Your task to perform on an android device: What is the recent news? Image 0: 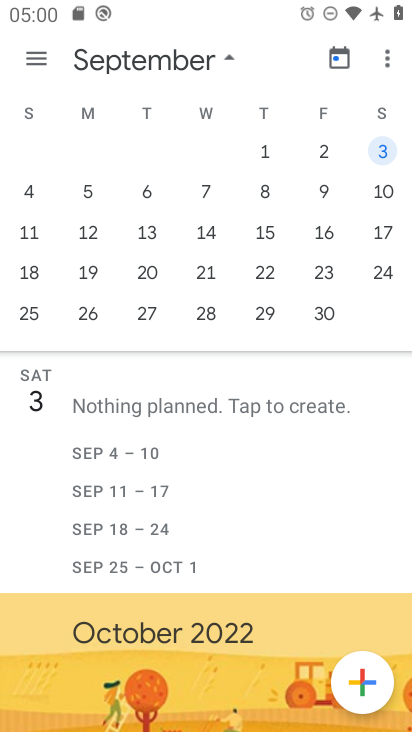
Step 0: press home button
Your task to perform on an android device: What is the recent news? Image 1: 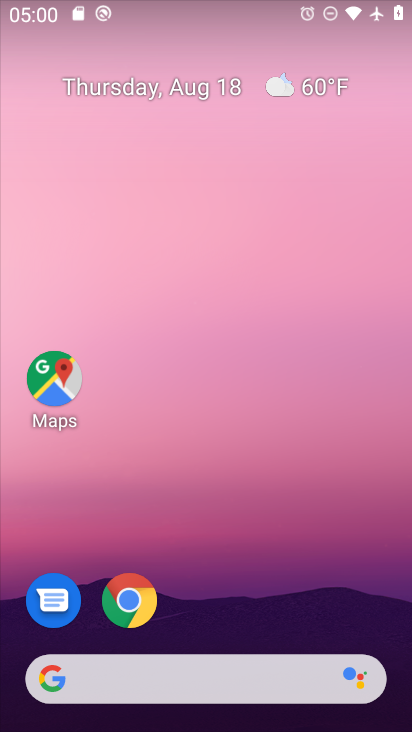
Step 1: click (51, 678)
Your task to perform on an android device: What is the recent news? Image 2: 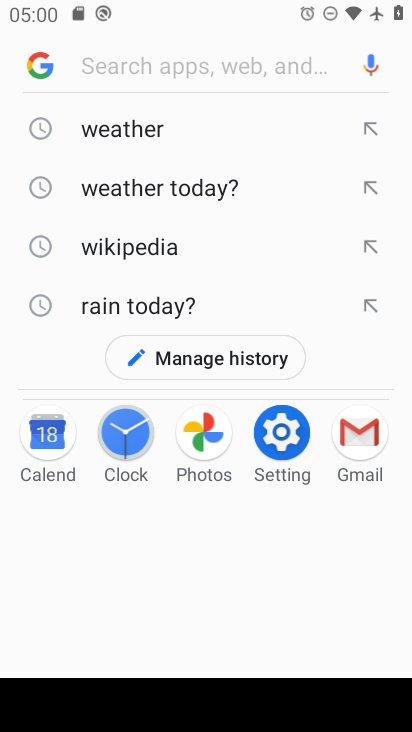
Step 2: type "recent news?"
Your task to perform on an android device: What is the recent news? Image 3: 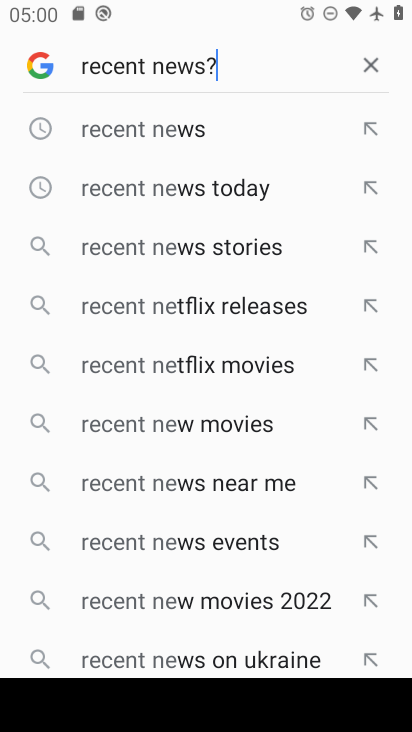
Step 3: press enter
Your task to perform on an android device: What is the recent news? Image 4: 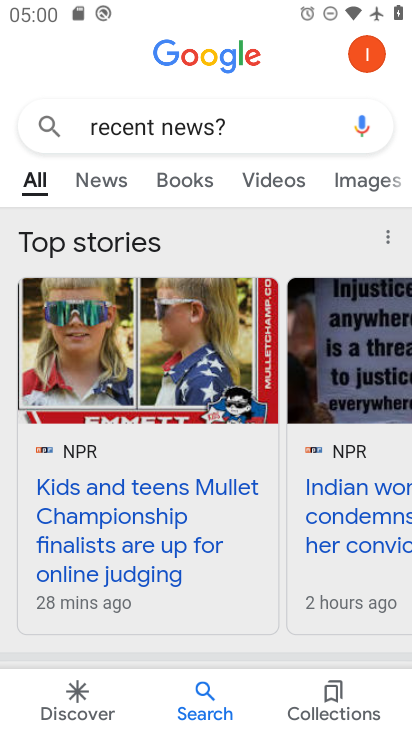
Step 4: task complete